Your task to perform on an android device: set the timer Image 0: 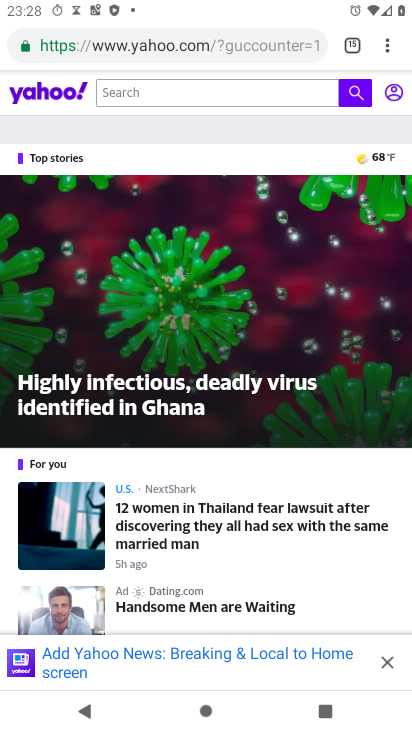
Step 0: press home button
Your task to perform on an android device: set the timer Image 1: 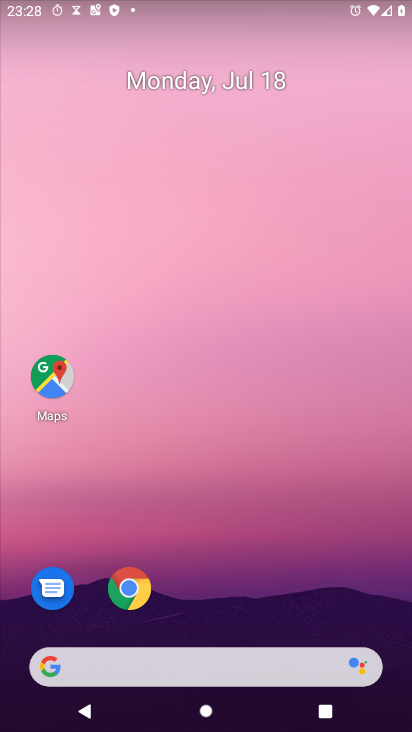
Step 1: drag from (247, 439) to (308, 109)
Your task to perform on an android device: set the timer Image 2: 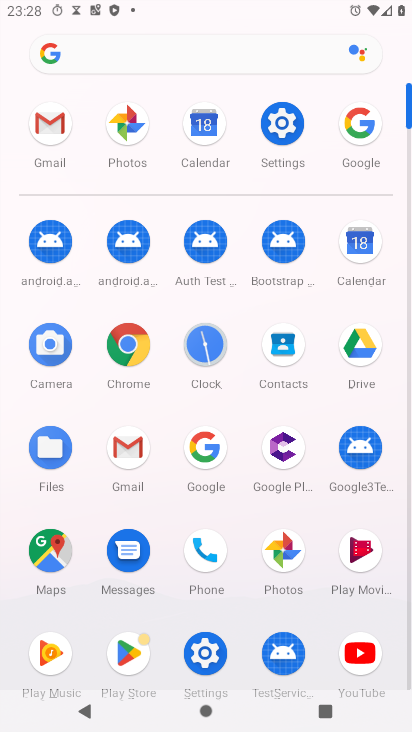
Step 2: click (208, 344)
Your task to perform on an android device: set the timer Image 3: 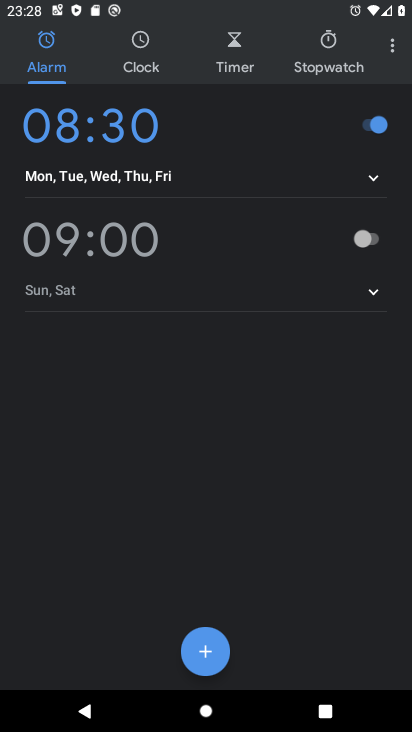
Step 3: click (242, 48)
Your task to perform on an android device: set the timer Image 4: 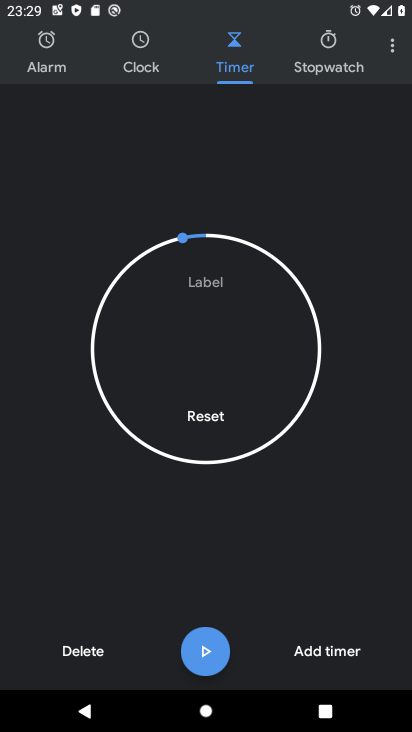
Step 4: click (93, 651)
Your task to perform on an android device: set the timer Image 5: 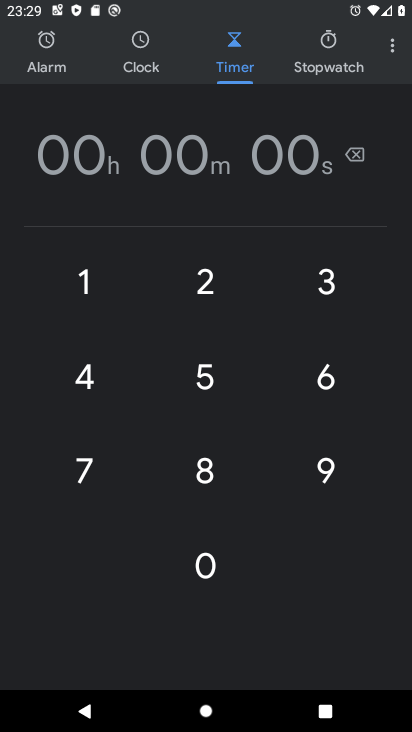
Step 5: click (85, 294)
Your task to perform on an android device: set the timer Image 6: 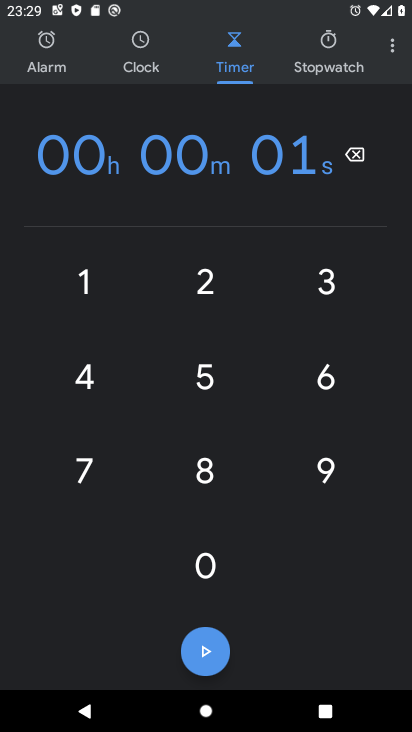
Step 6: click (211, 281)
Your task to perform on an android device: set the timer Image 7: 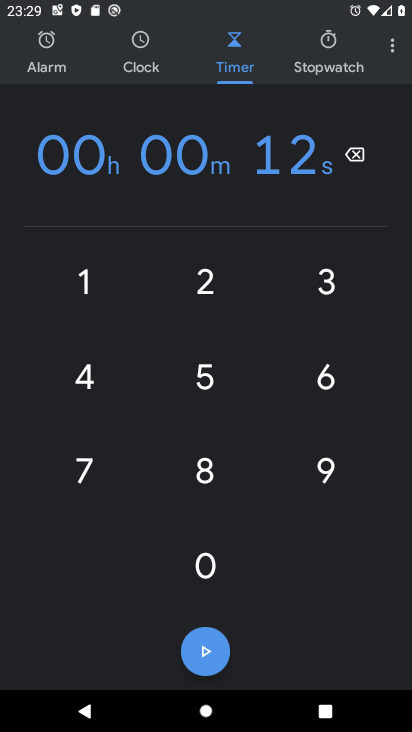
Step 7: click (213, 657)
Your task to perform on an android device: set the timer Image 8: 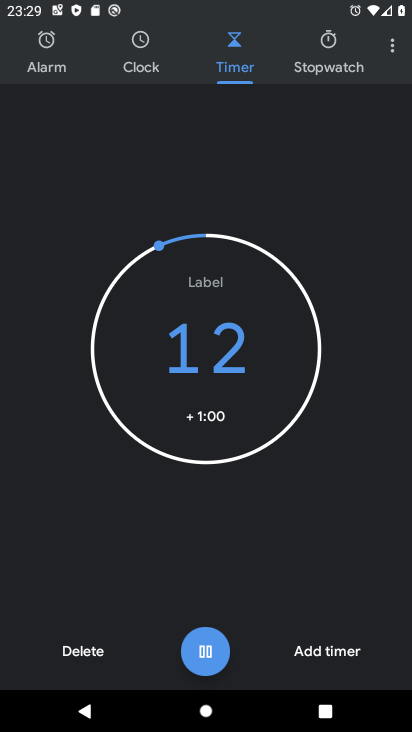
Step 8: click (213, 657)
Your task to perform on an android device: set the timer Image 9: 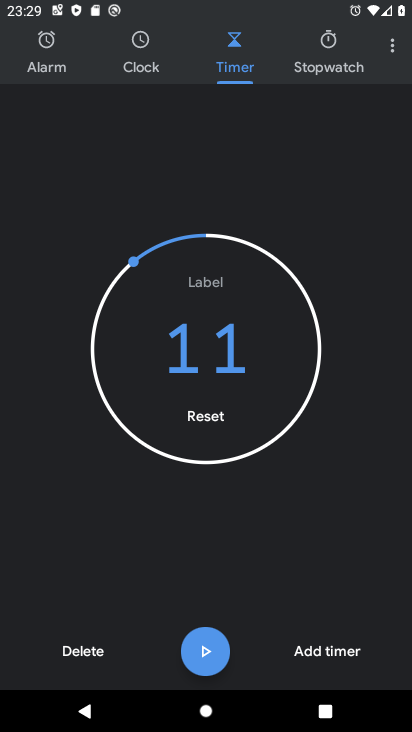
Step 9: task complete